Your task to perform on an android device: turn off location history Image 0: 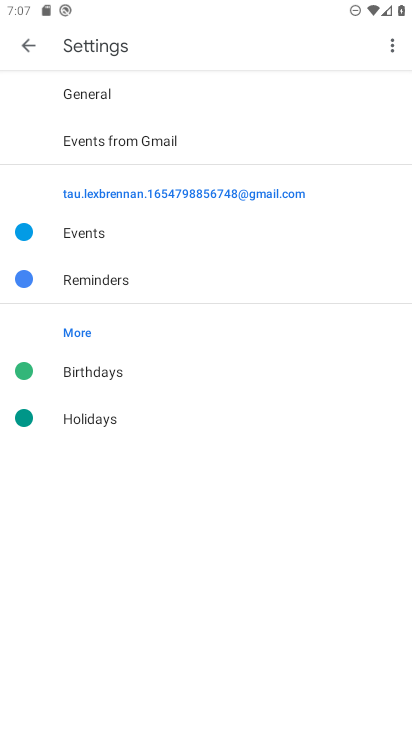
Step 0: press home button
Your task to perform on an android device: turn off location history Image 1: 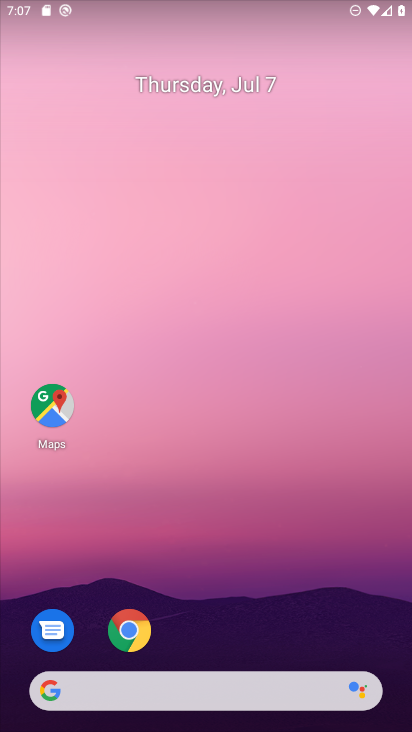
Step 1: drag from (242, 566) to (205, 65)
Your task to perform on an android device: turn off location history Image 2: 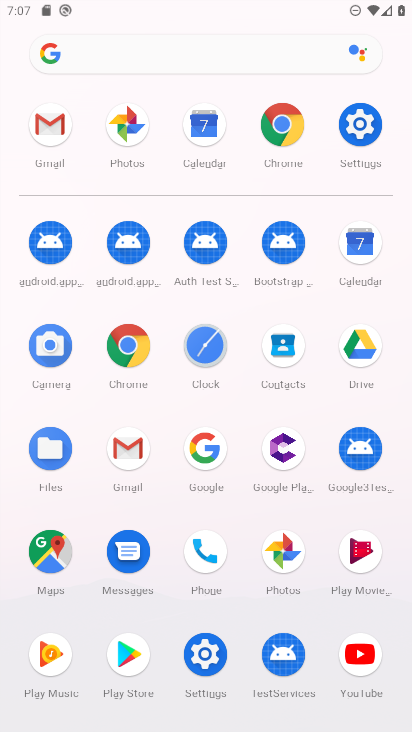
Step 2: click (36, 544)
Your task to perform on an android device: turn off location history Image 3: 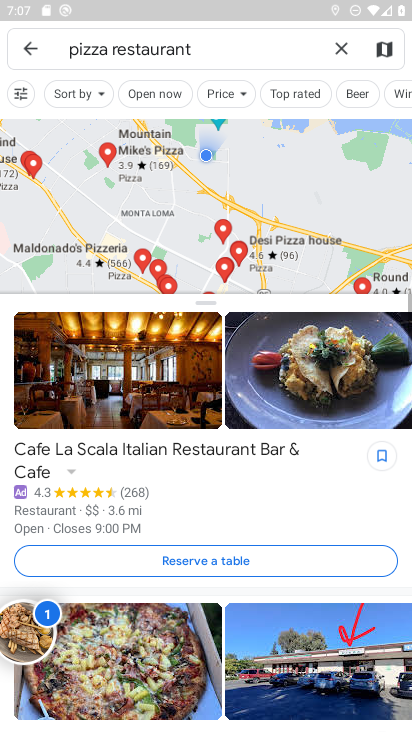
Step 3: click (28, 50)
Your task to perform on an android device: turn off location history Image 4: 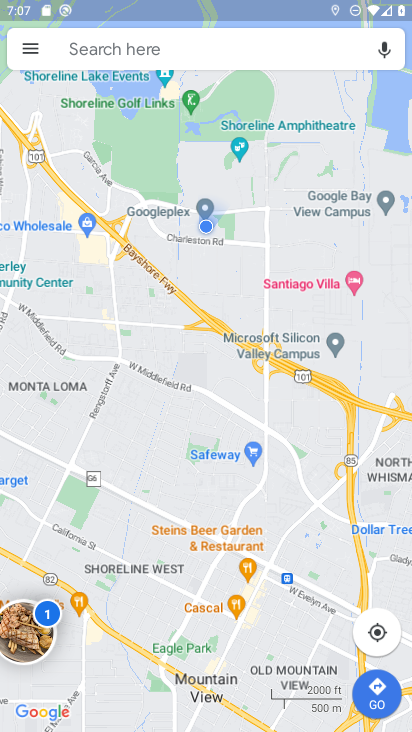
Step 4: click (28, 50)
Your task to perform on an android device: turn off location history Image 5: 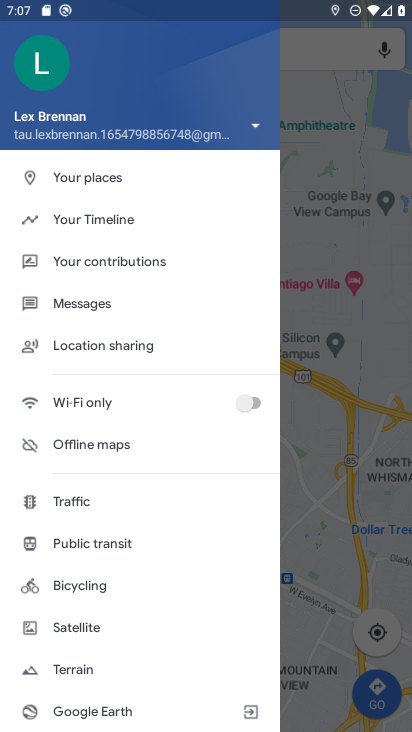
Step 5: click (99, 215)
Your task to perform on an android device: turn off location history Image 6: 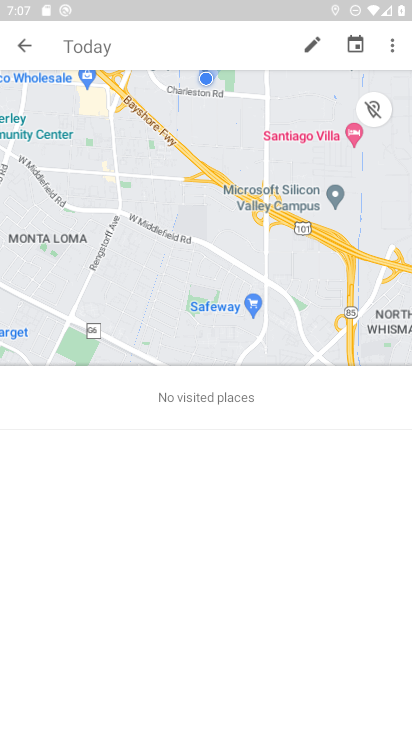
Step 6: click (394, 45)
Your task to perform on an android device: turn off location history Image 7: 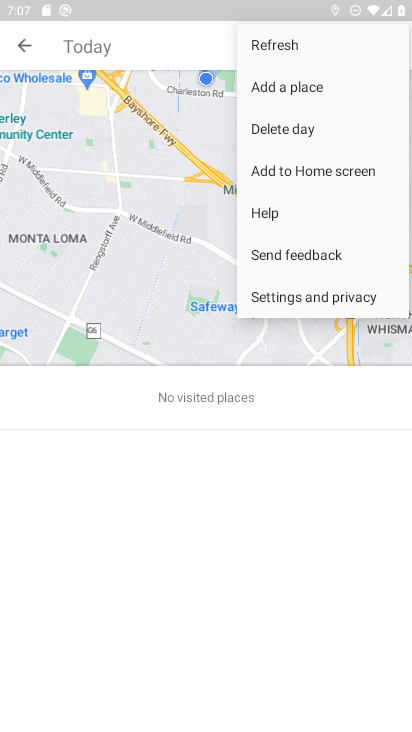
Step 7: click (308, 292)
Your task to perform on an android device: turn off location history Image 8: 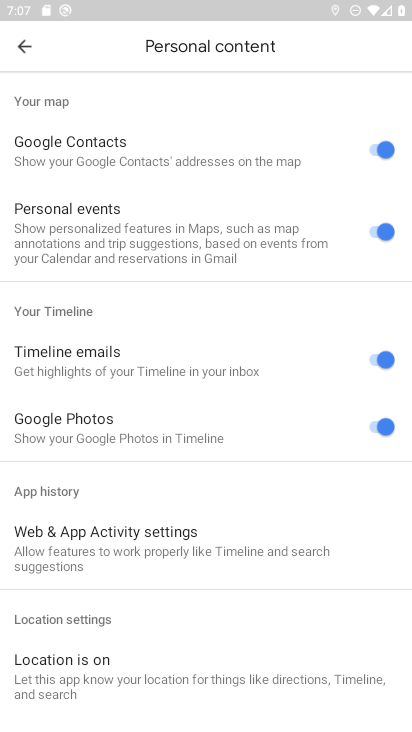
Step 8: drag from (258, 588) to (246, 301)
Your task to perform on an android device: turn off location history Image 9: 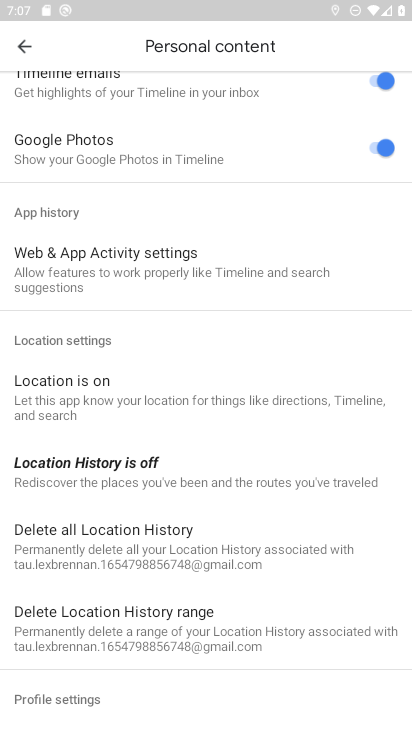
Step 9: click (81, 466)
Your task to perform on an android device: turn off location history Image 10: 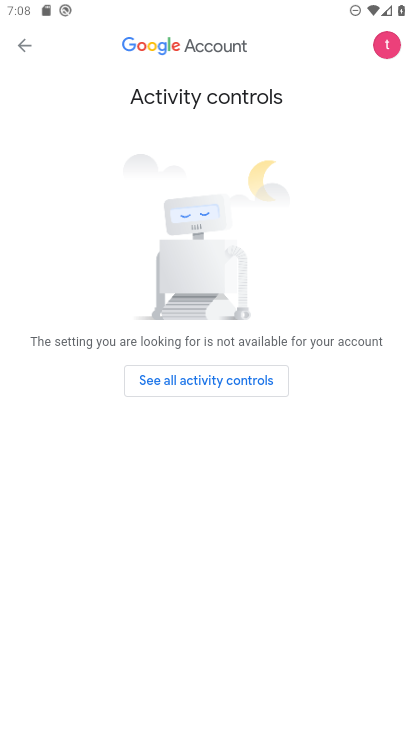
Step 10: click (19, 46)
Your task to perform on an android device: turn off location history Image 11: 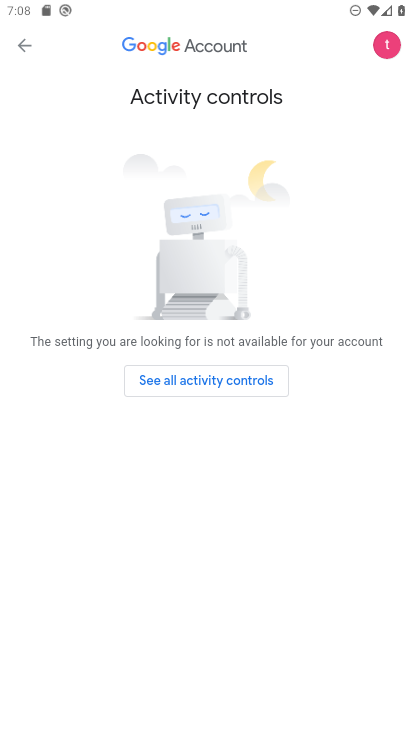
Step 11: click (21, 46)
Your task to perform on an android device: turn off location history Image 12: 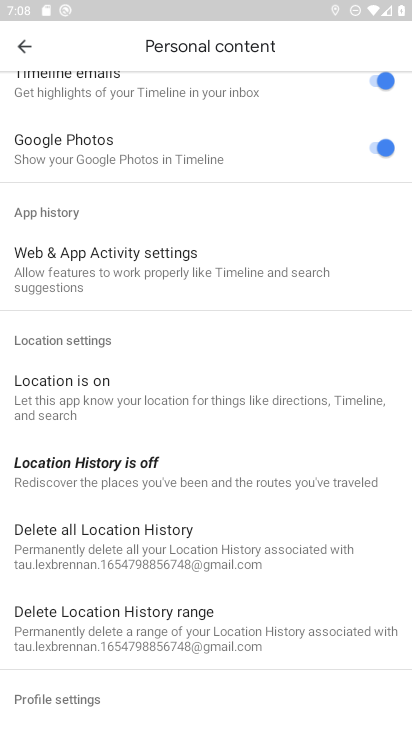
Step 12: click (93, 471)
Your task to perform on an android device: turn off location history Image 13: 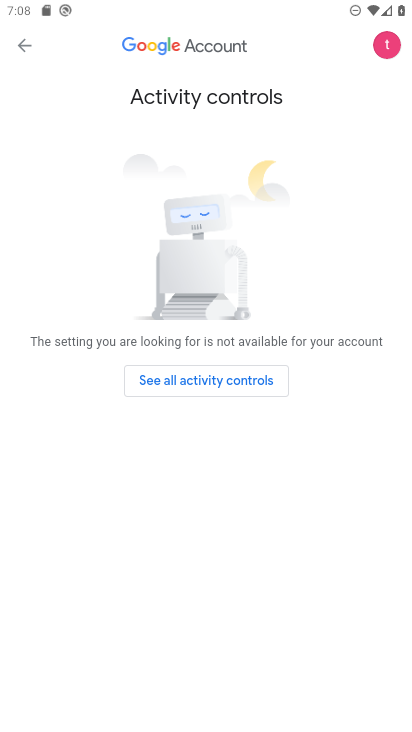
Step 13: task complete